Your task to perform on an android device: Go to wifi settings Image 0: 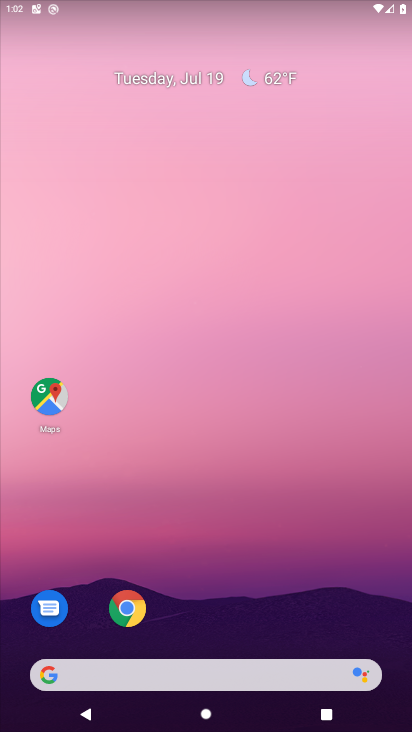
Step 0: drag from (230, 614) to (292, 110)
Your task to perform on an android device: Go to wifi settings Image 1: 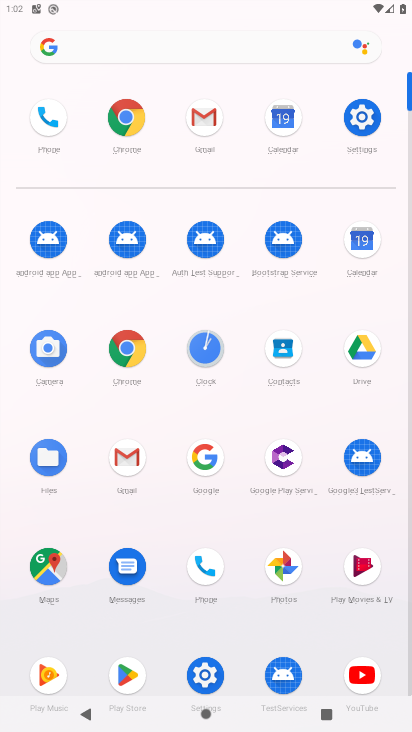
Step 1: click (363, 111)
Your task to perform on an android device: Go to wifi settings Image 2: 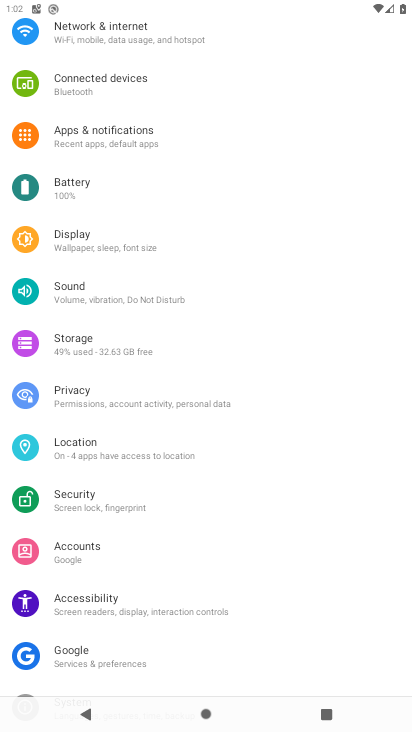
Step 2: drag from (154, 64) to (143, 499)
Your task to perform on an android device: Go to wifi settings Image 3: 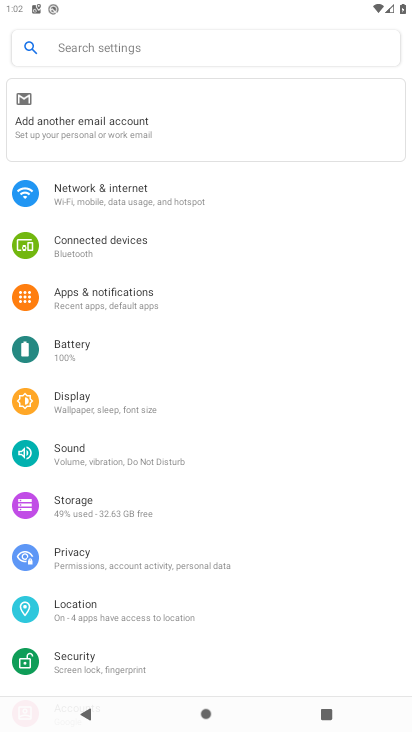
Step 3: click (112, 185)
Your task to perform on an android device: Go to wifi settings Image 4: 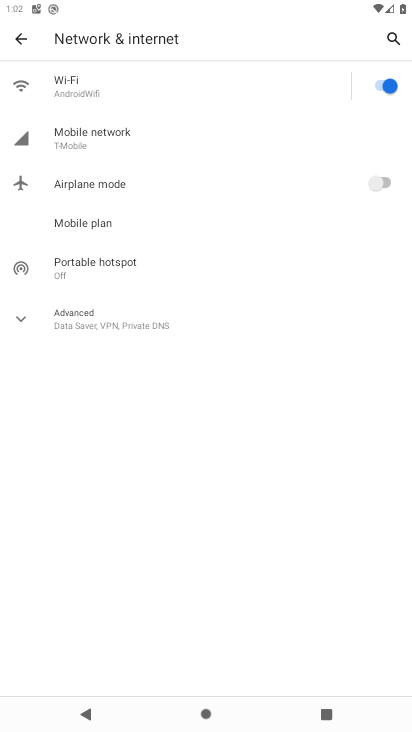
Step 4: click (91, 82)
Your task to perform on an android device: Go to wifi settings Image 5: 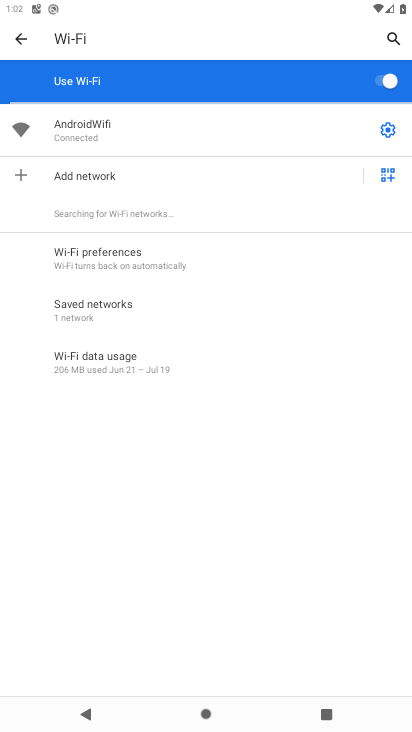
Step 5: task complete